Your task to perform on an android device: Open maps Image 0: 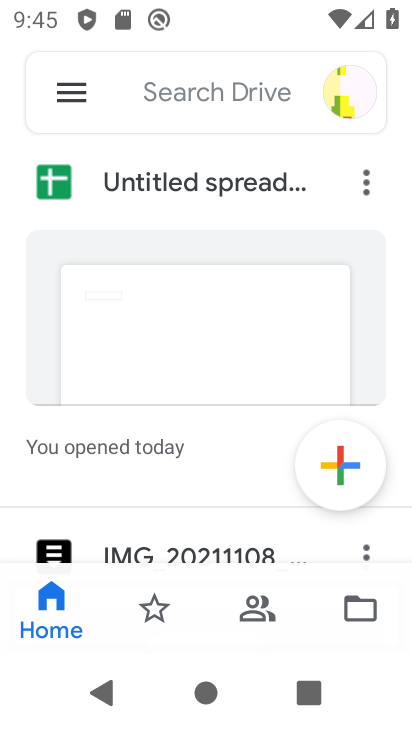
Step 0: press home button
Your task to perform on an android device: Open maps Image 1: 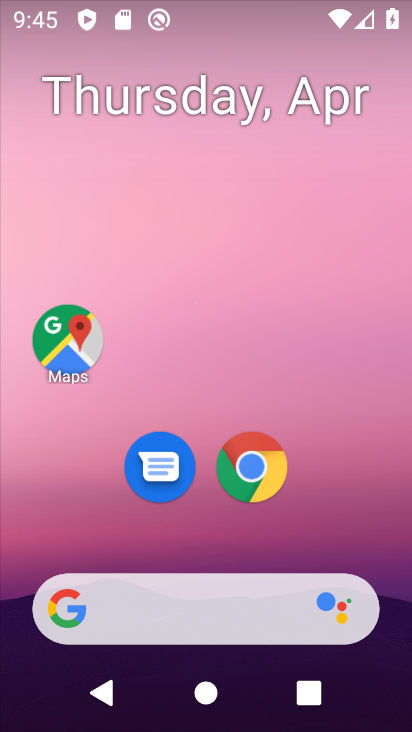
Step 1: click (86, 340)
Your task to perform on an android device: Open maps Image 2: 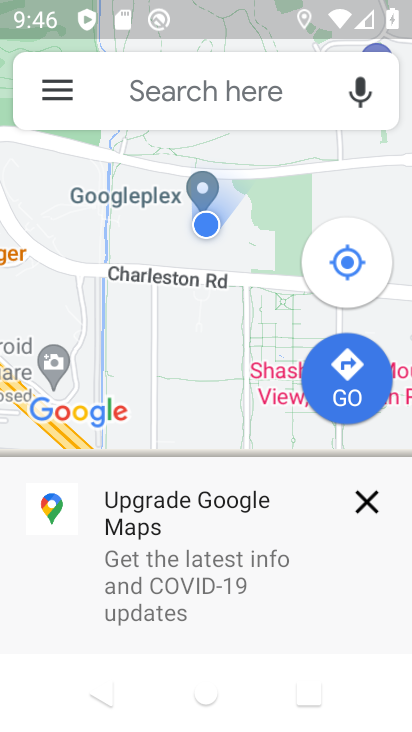
Step 2: task complete